Your task to perform on an android device: set the timer Image 0: 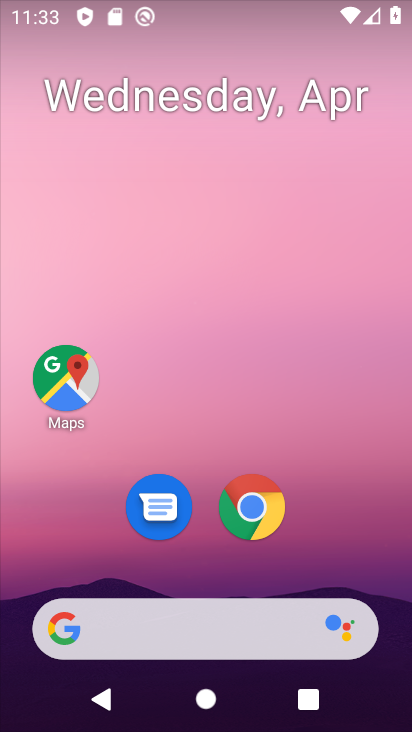
Step 0: drag from (350, 519) to (286, 18)
Your task to perform on an android device: set the timer Image 1: 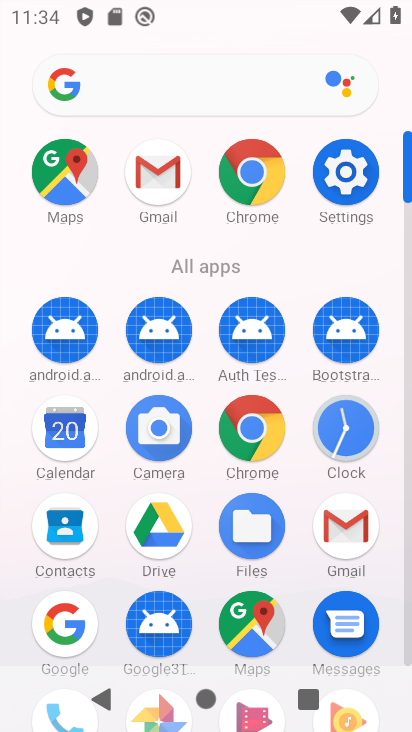
Step 1: click (406, 658)
Your task to perform on an android device: set the timer Image 2: 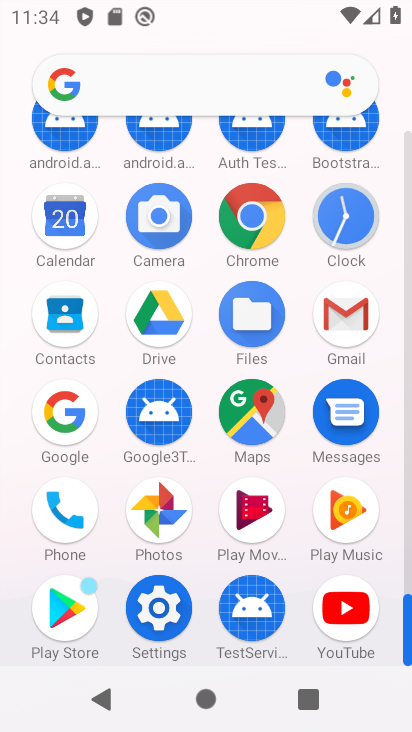
Step 2: click (352, 219)
Your task to perform on an android device: set the timer Image 3: 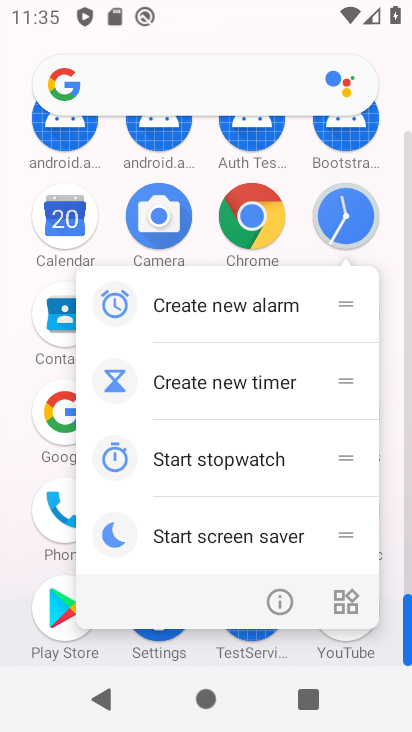
Step 3: click (352, 219)
Your task to perform on an android device: set the timer Image 4: 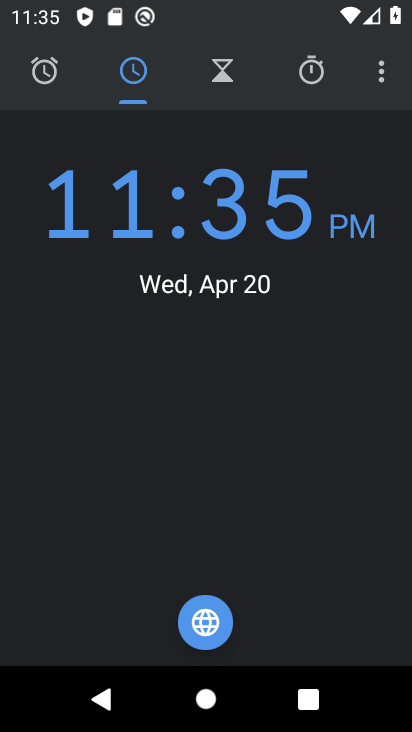
Step 4: click (385, 57)
Your task to perform on an android device: set the timer Image 5: 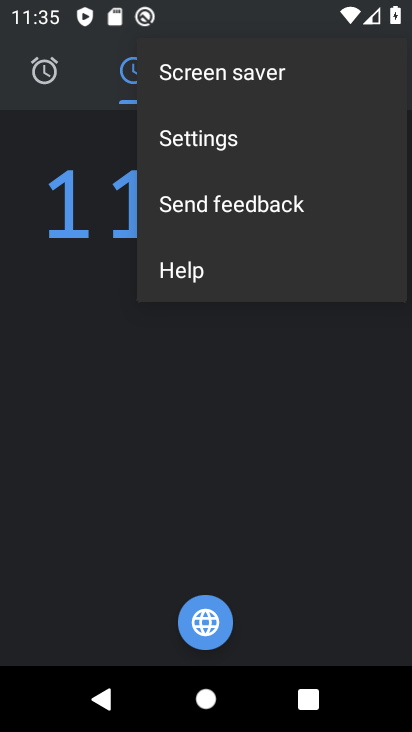
Step 5: click (239, 134)
Your task to perform on an android device: set the timer Image 6: 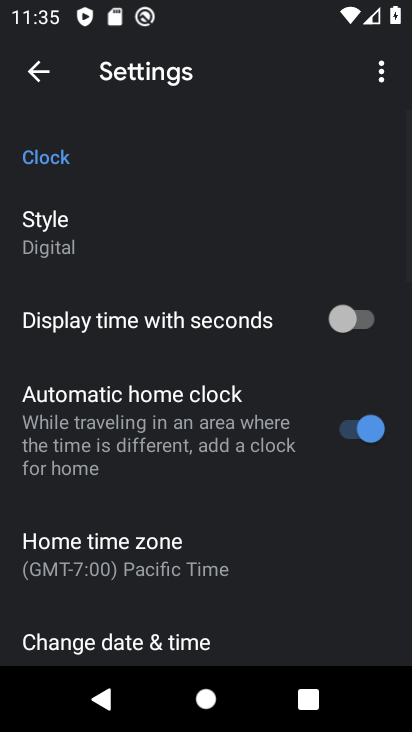
Step 6: click (194, 576)
Your task to perform on an android device: set the timer Image 7: 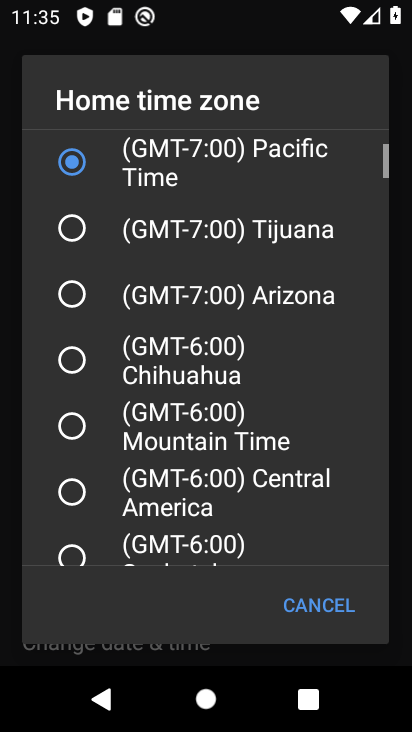
Step 7: click (228, 307)
Your task to perform on an android device: set the timer Image 8: 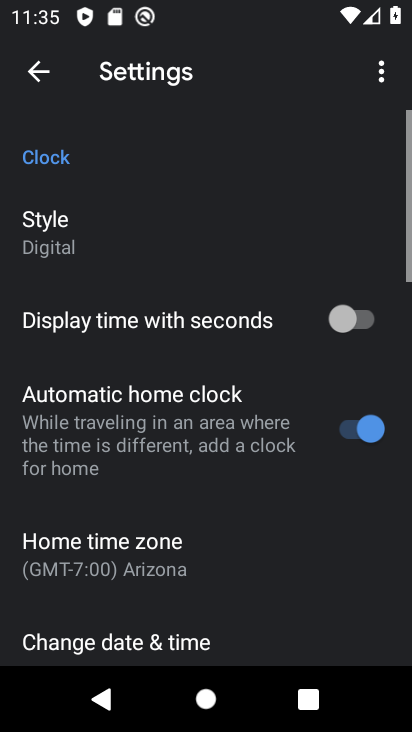
Step 8: task complete